Your task to perform on an android device: stop showing notifications on the lock screen Image 0: 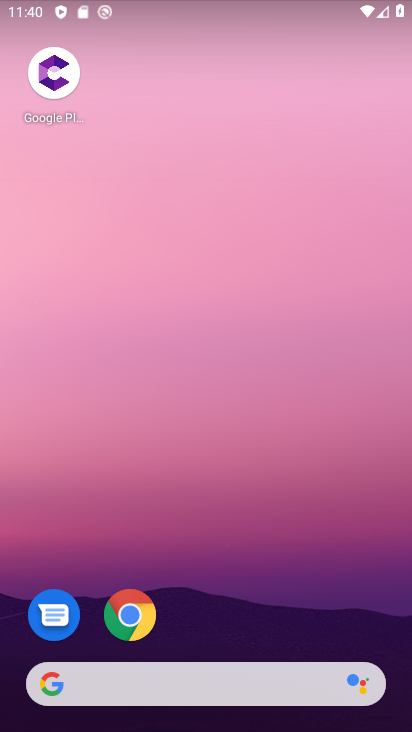
Step 0: drag from (240, 611) to (295, 105)
Your task to perform on an android device: stop showing notifications on the lock screen Image 1: 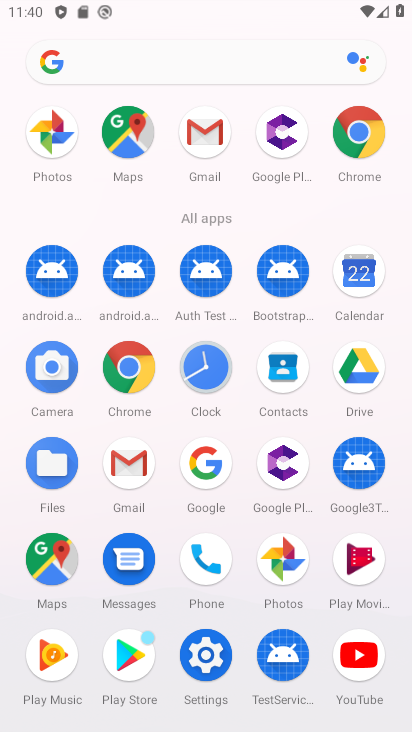
Step 1: click (223, 654)
Your task to perform on an android device: stop showing notifications on the lock screen Image 2: 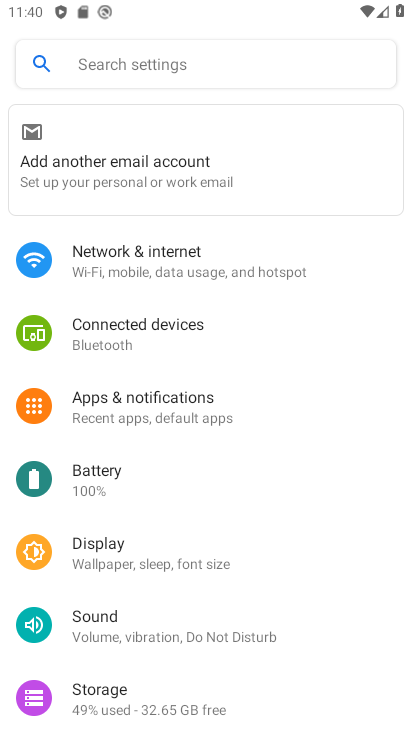
Step 2: click (165, 408)
Your task to perform on an android device: stop showing notifications on the lock screen Image 3: 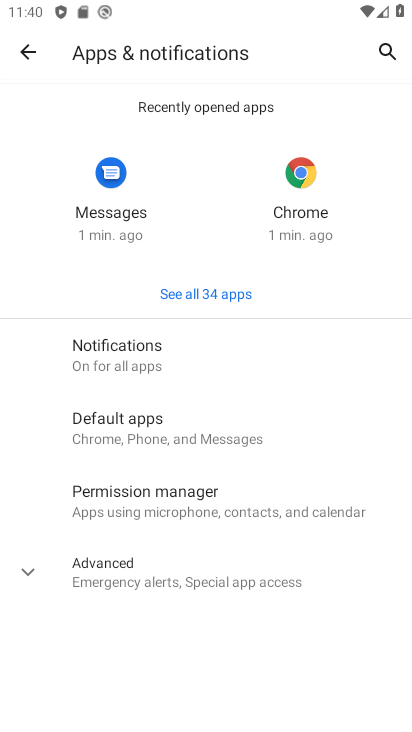
Step 3: click (105, 350)
Your task to perform on an android device: stop showing notifications on the lock screen Image 4: 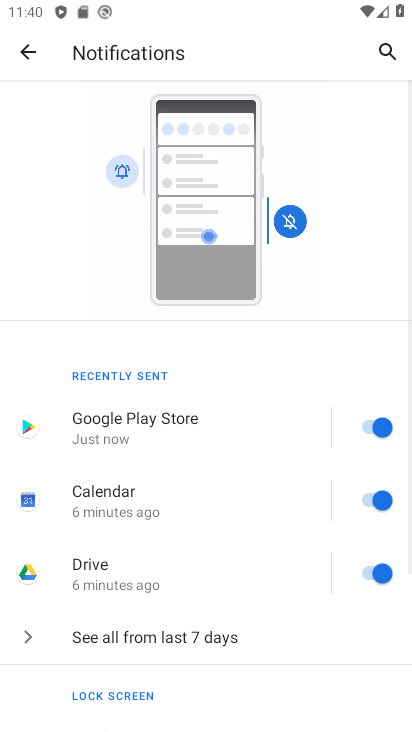
Step 4: drag from (120, 648) to (206, 185)
Your task to perform on an android device: stop showing notifications on the lock screen Image 5: 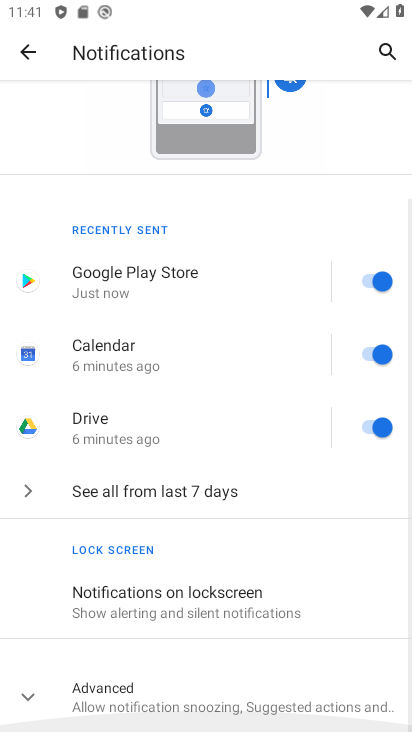
Step 5: click (191, 620)
Your task to perform on an android device: stop showing notifications on the lock screen Image 6: 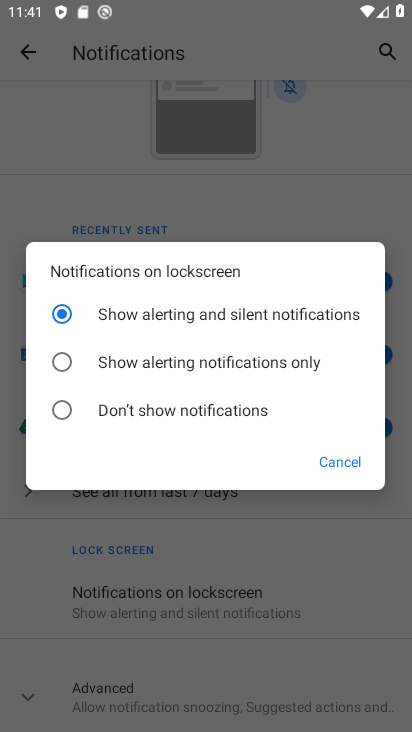
Step 6: click (61, 401)
Your task to perform on an android device: stop showing notifications on the lock screen Image 7: 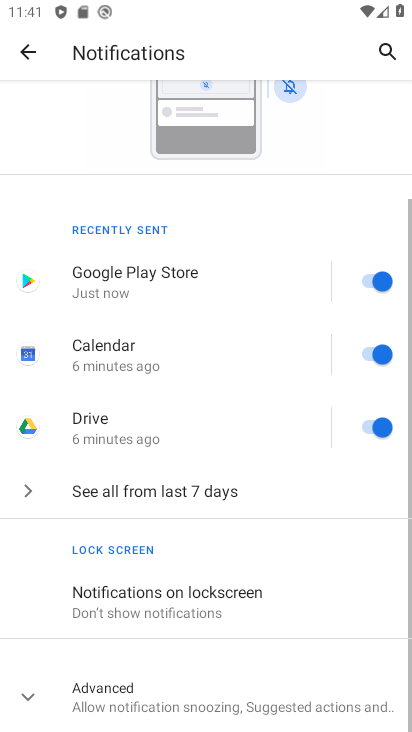
Step 7: task complete